Your task to perform on an android device: check data usage Image 0: 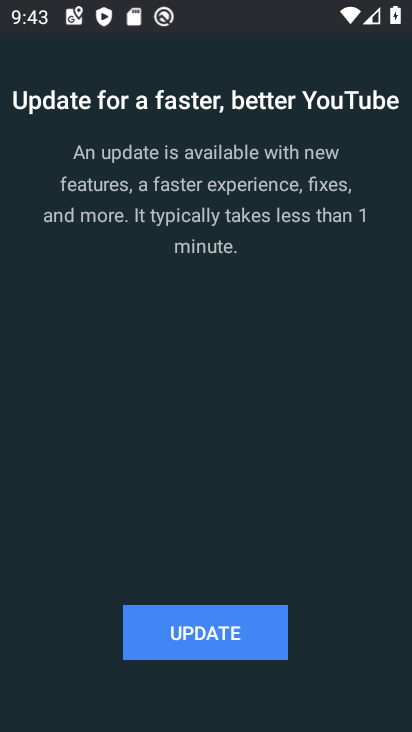
Step 0: press home button
Your task to perform on an android device: check data usage Image 1: 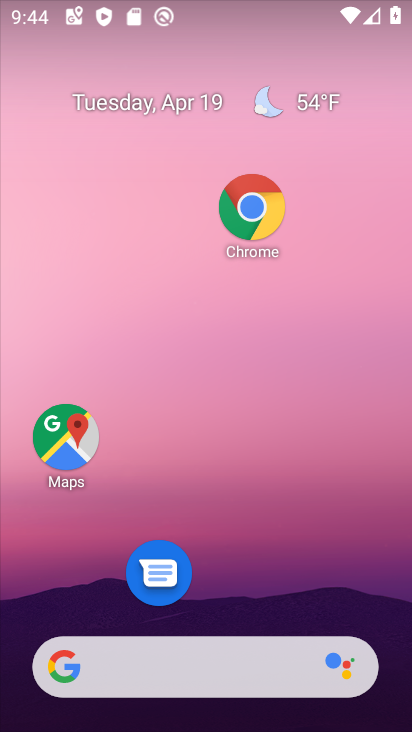
Step 1: drag from (235, 624) to (265, 158)
Your task to perform on an android device: check data usage Image 2: 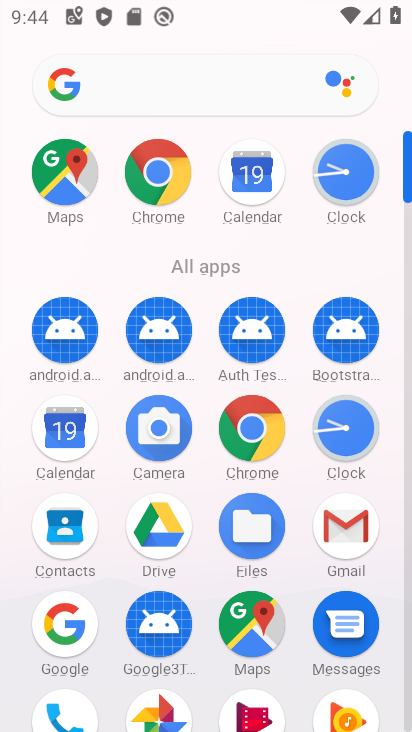
Step 2: drag from (210, 534) to (209, 273)
Your task to perform on an android device: check data usage Image 3: 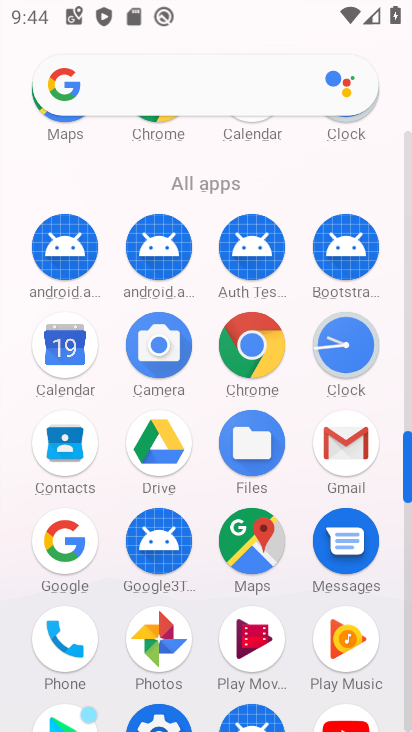
Step 3: drag from (208, 582) to (221, 238)
Your task to perform on an android device: check data usage Image 4: 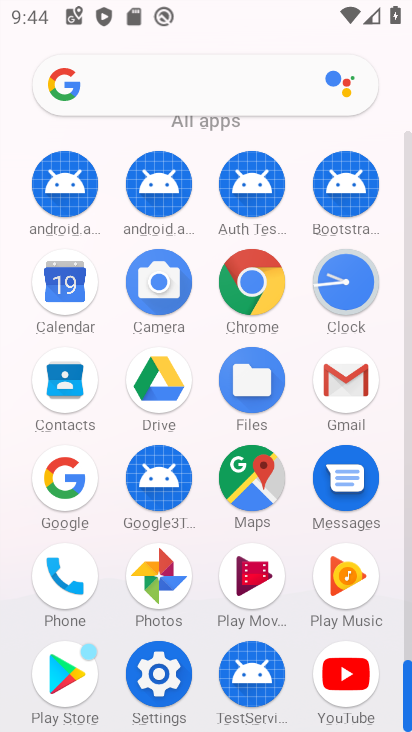
Step 4: click (155, 680)
Your task to perform on an android device: check data usage Image 5: 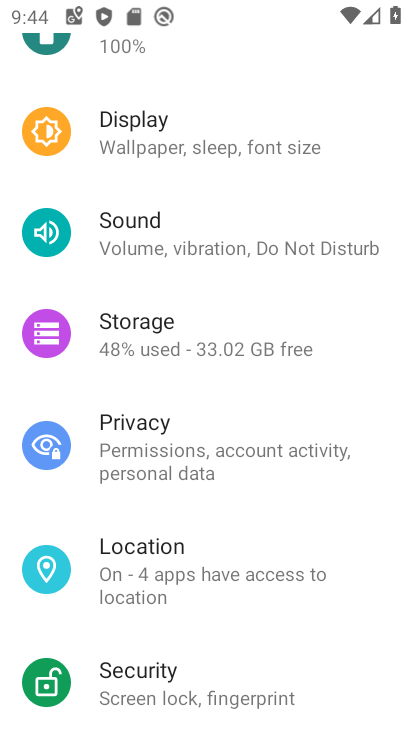
Step 5: drag from (247, 125) to (258, 541)
Your task to perform on an android device: check data usage Image 6: 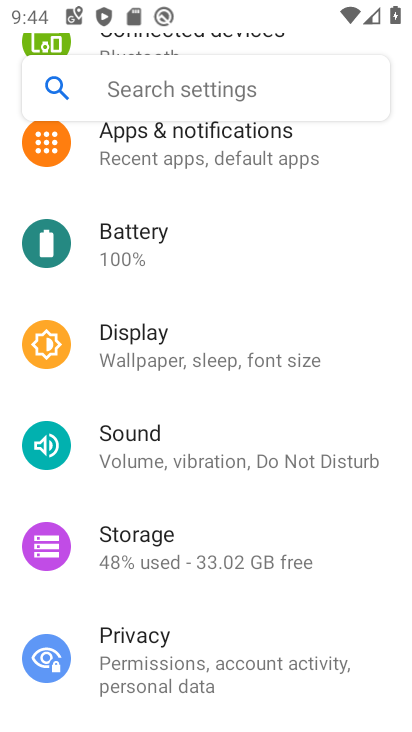
Step 6: drag from (263, 157) to (264, 656)
Your task to perform on an android device: check data usage Image 7: 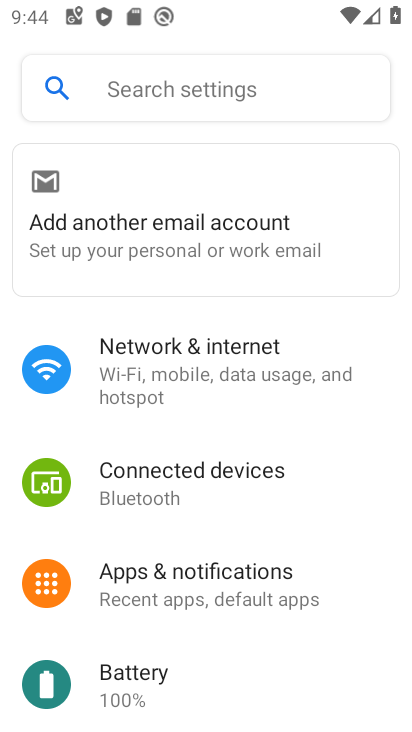
Step 7: click (221, 361)
Your task to perform on an android device: check data usage Image 8: 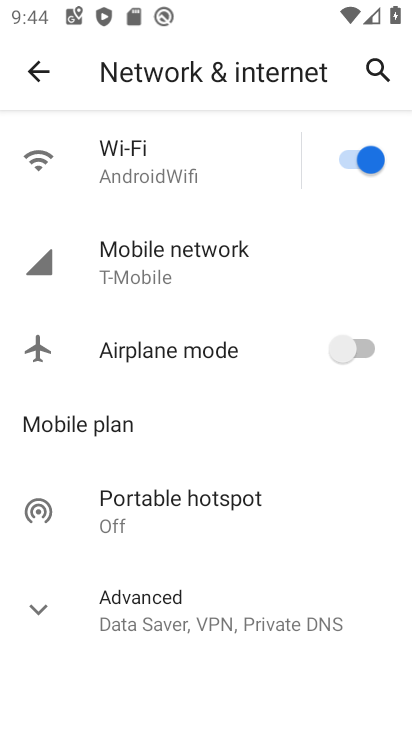
Step 8: click (162, 255)
Your task to perform on an android device: check data usage Image 9: 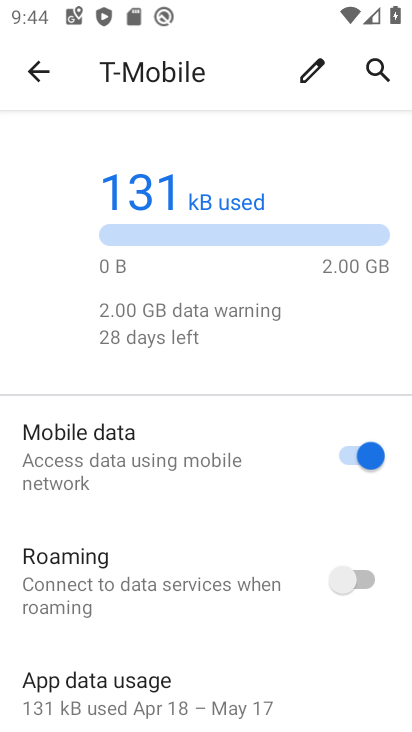
Step 9: task complete